Your task to perform on an android device: Add "razer nari" to the cart on bestbuy.com Image 0: 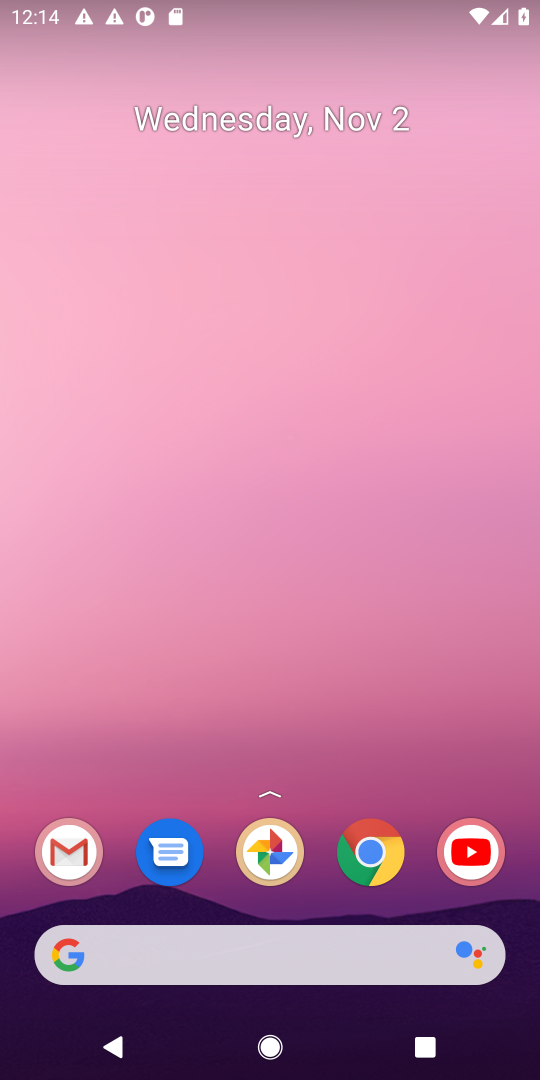
Step 0: press home button
Your task to perform on an android device: Add "razer nari" to the cart on bestbuy.com Image 1: 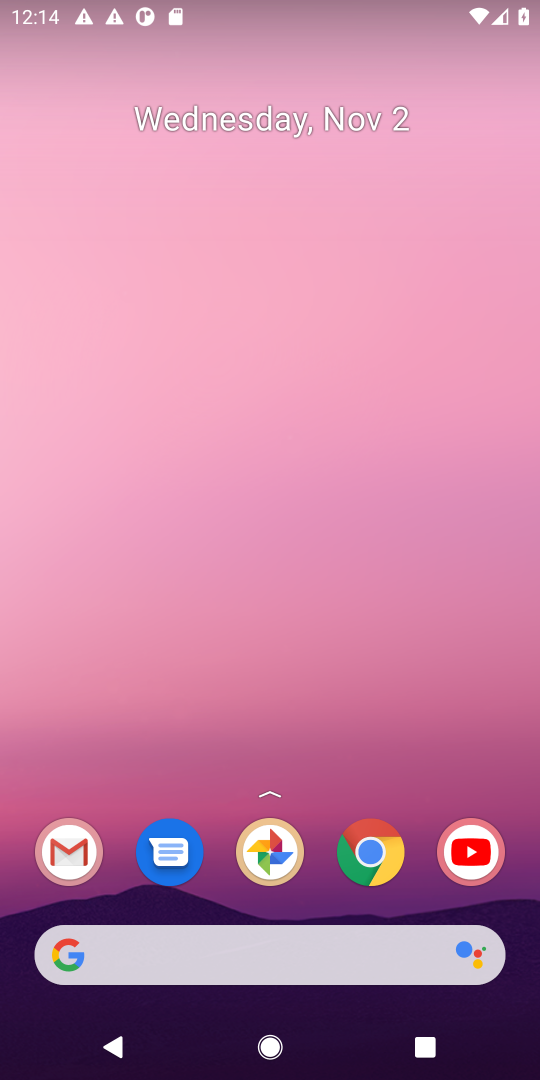
Step 1: click (67, 948)
Your task to perform on an android device: Add "razer nari" to the cart on bestbuy.com Image 2: 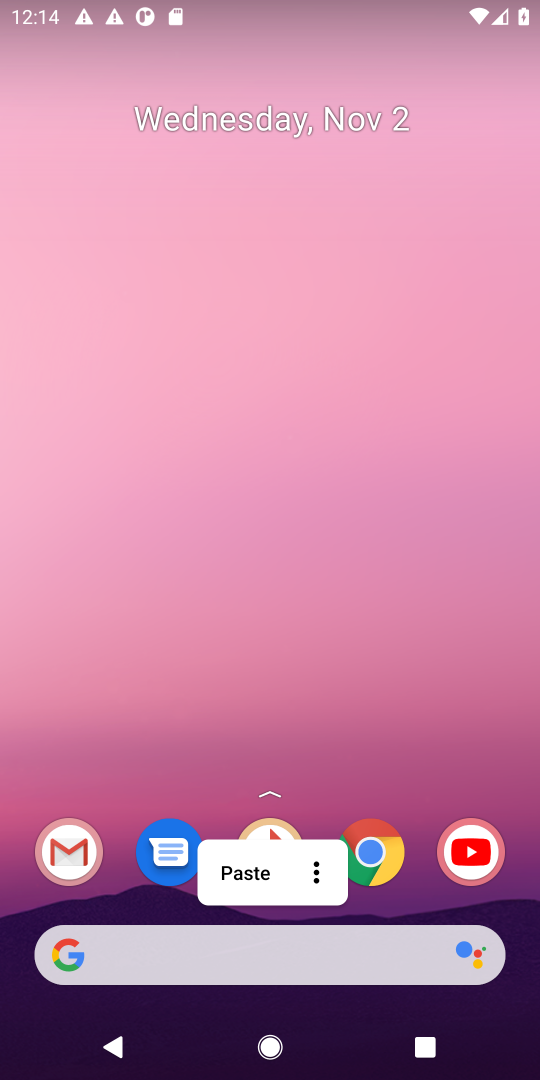
Step 2: click (61, 955)
Your task to perform on an android device: Add "razer nari" to the cart on bestbuy.com Image 3: 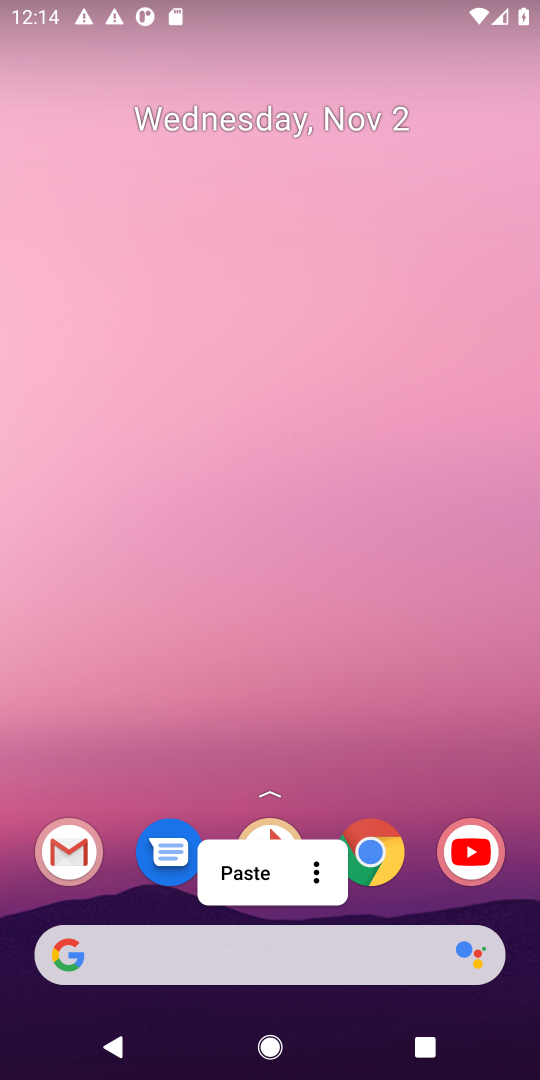
Step 3: click (62, 961)
Your task to perform on an android device: Add "razer nari" to the cart on bestbuy.com Image 4: 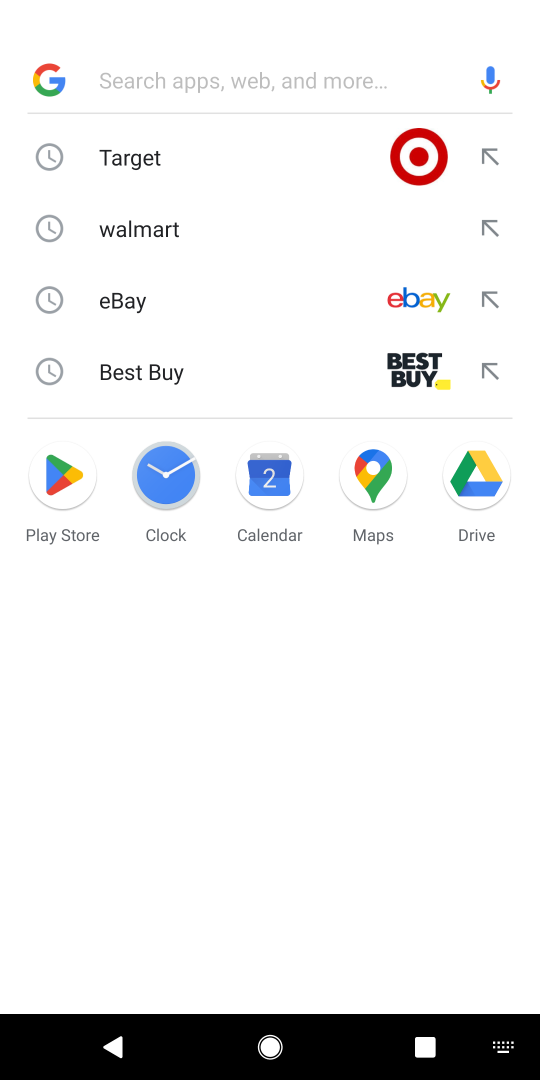
Step 4: type " bestbuy.com"
Your task to perform on an android device: Add "razer nari" to the cart on bestbuy.com Image 5: 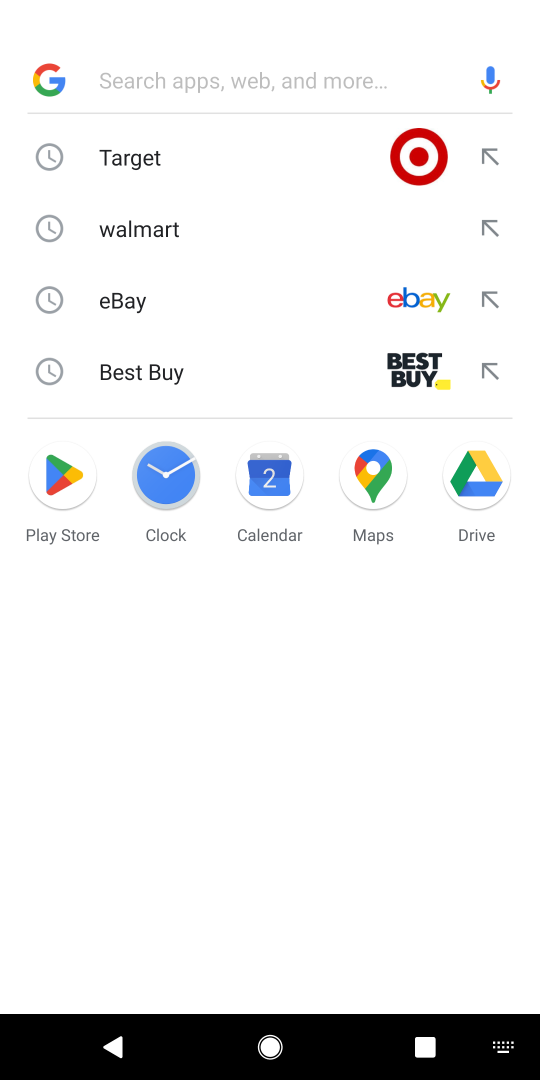
Step 5: click (149, 368)
Your task to perform on an android device: Add "razer nari" to the cart on bestbuy.com Image 6: 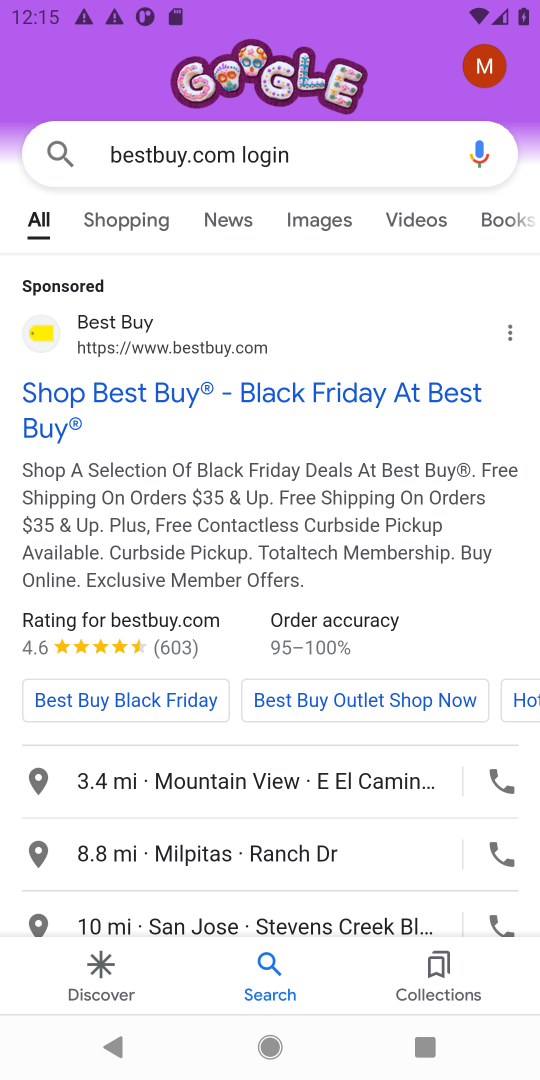
Step 6: drag from (233, 695) to (223, 273)
Your task to perform on an android device: Add "razer nari" to the cart on bestbuy.com Image 7: 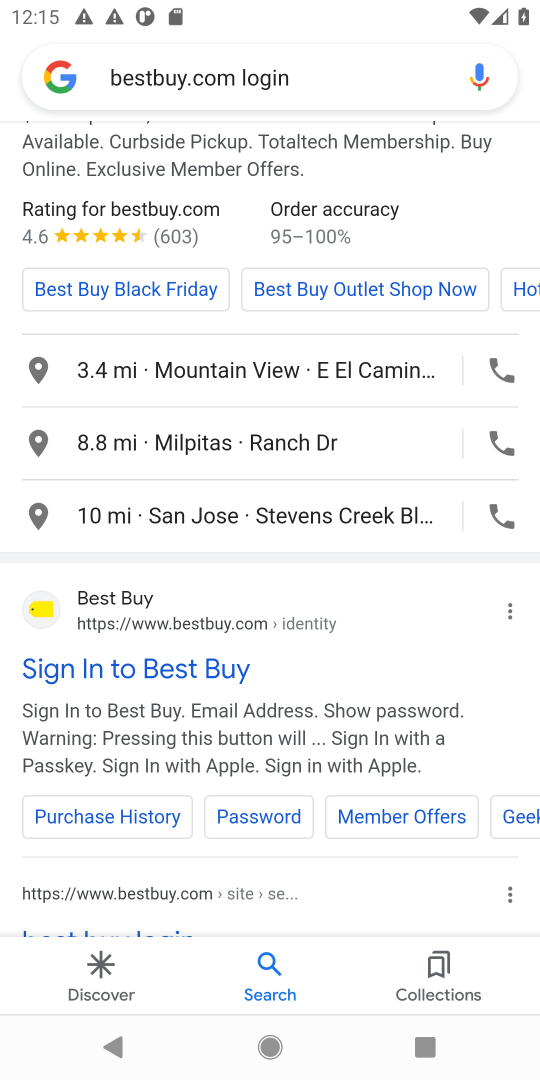
Step 7: click (94, 677)
Your task to perform on an android device: Add "razer nari" to the cart on bestbuy.com Image 8: 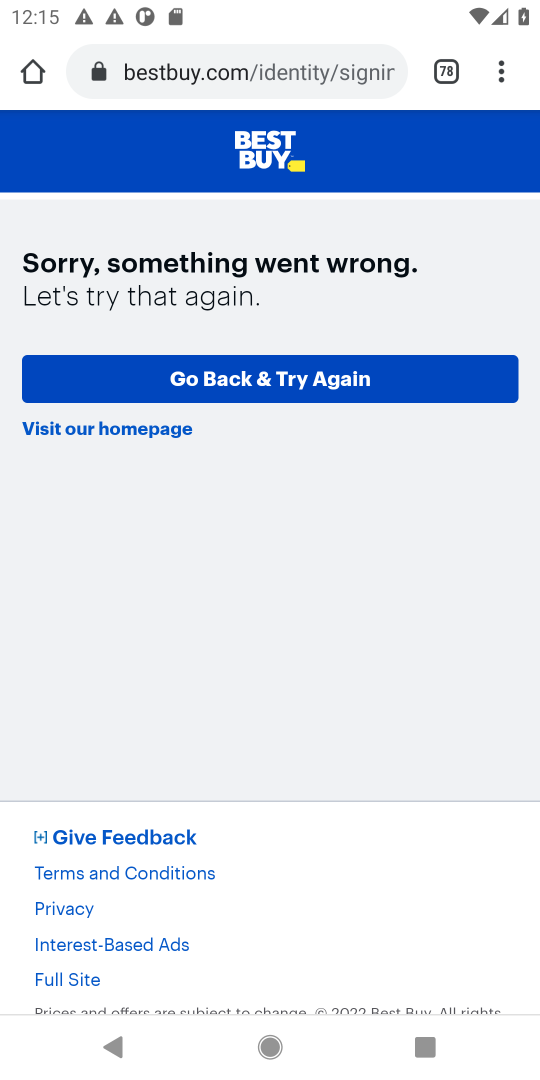
Step 8: click (289, 382)
Your task to perform on an android device: Add "razer nari" to the cart on bestbuy.com Image 9: 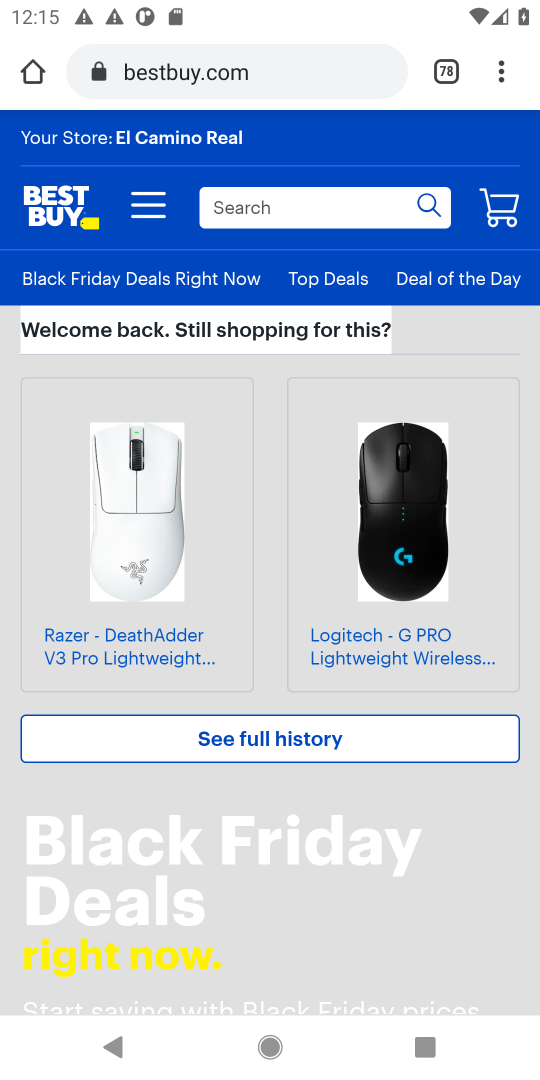
Step 9: click (334, 211)
Your task to perform on an android device: Add "razer nari" to the cart on bestbuy.com Image 10: 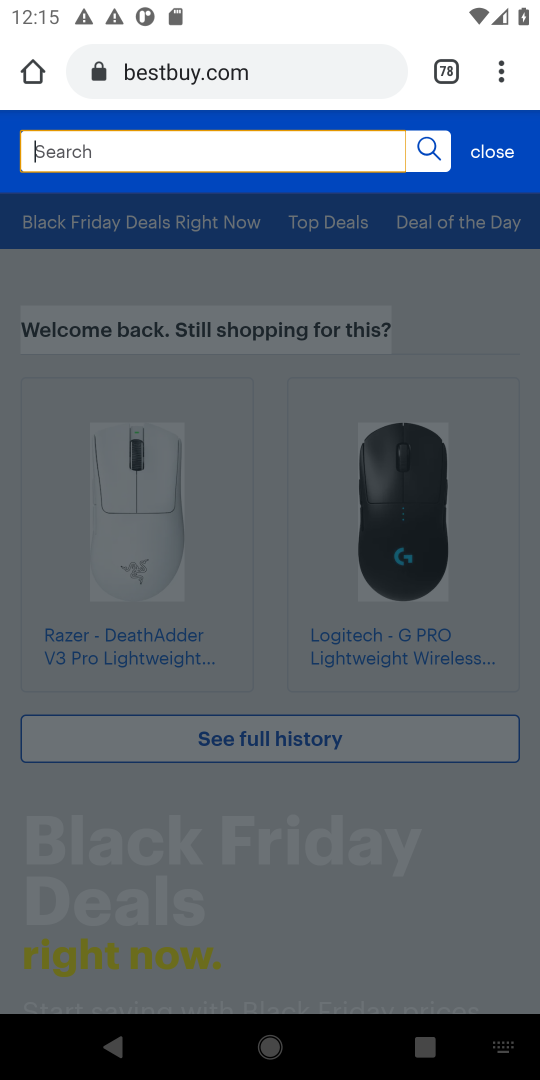
Step 10: type "razer nari"
Your task to perform on an android device: Add "razer nari" to the cart on bestbuy.com Image 11: 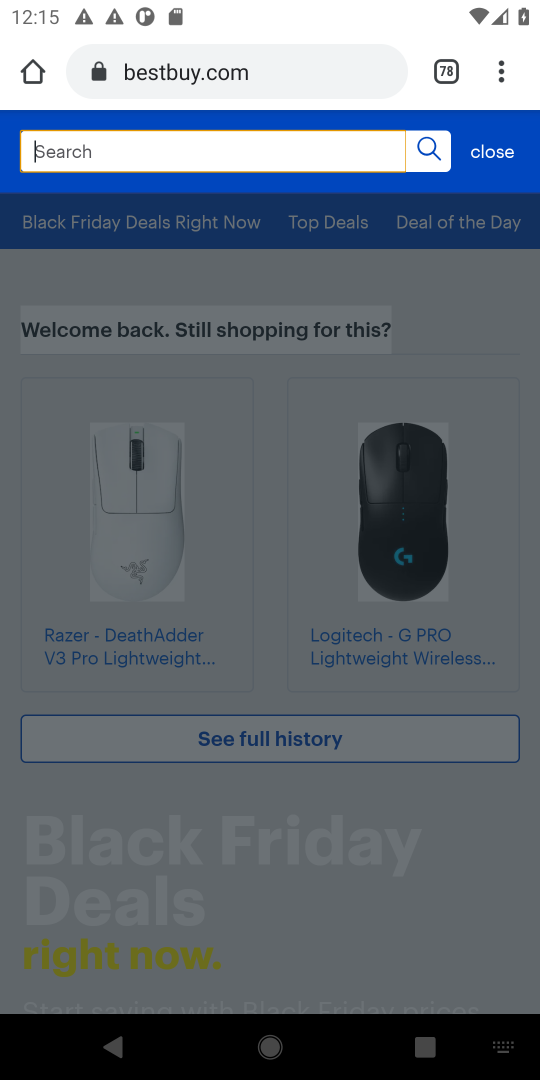
Step 11: click (95, 150)
Your task to perform on an android device: Add "razer nari" to the cart on bestbuy.com Image 12: 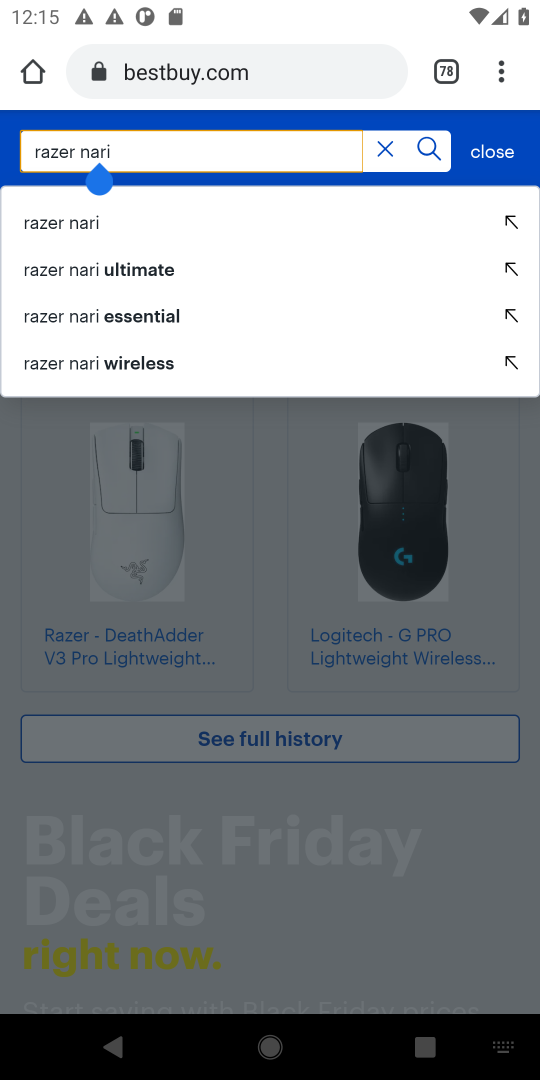
Step 12: click (75, 224)
Your task to perform on an android device: Add "razer nari" to the cart on bestbuy.com Image 13: 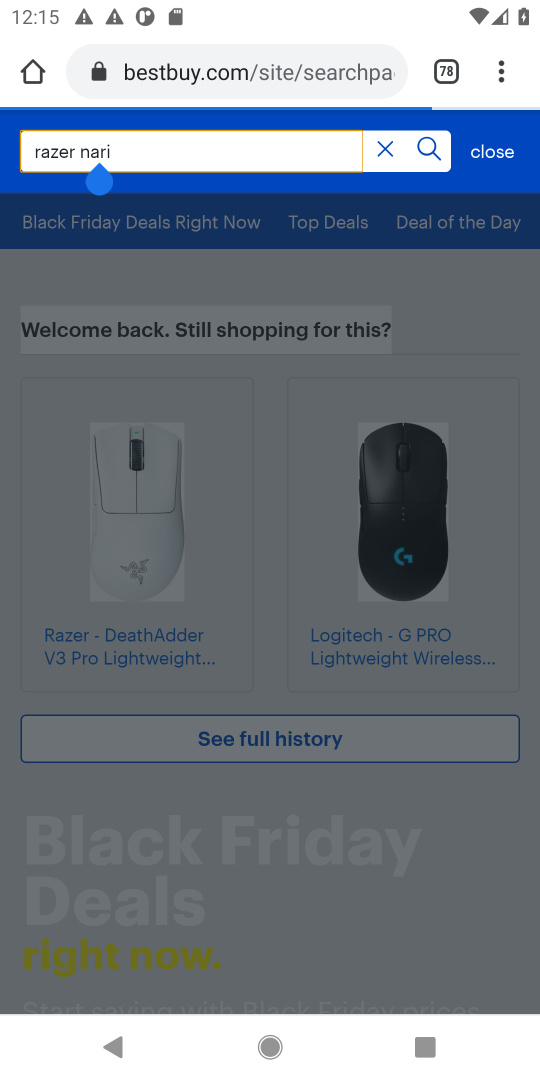
Step 13: press enter
Your task to perform on an android device: Add "razer nari" to the cart on bestbuy.com Image 14: 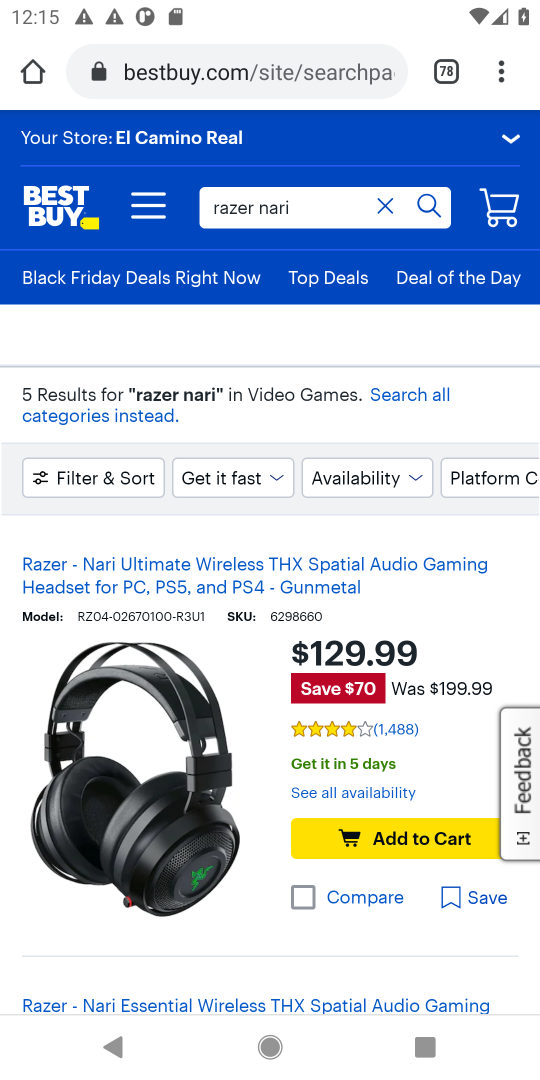
Step 14: click (400, 842)
Your task to perform on an android device: Add "razer nari" to the cart on bestbuy.com Image 15: 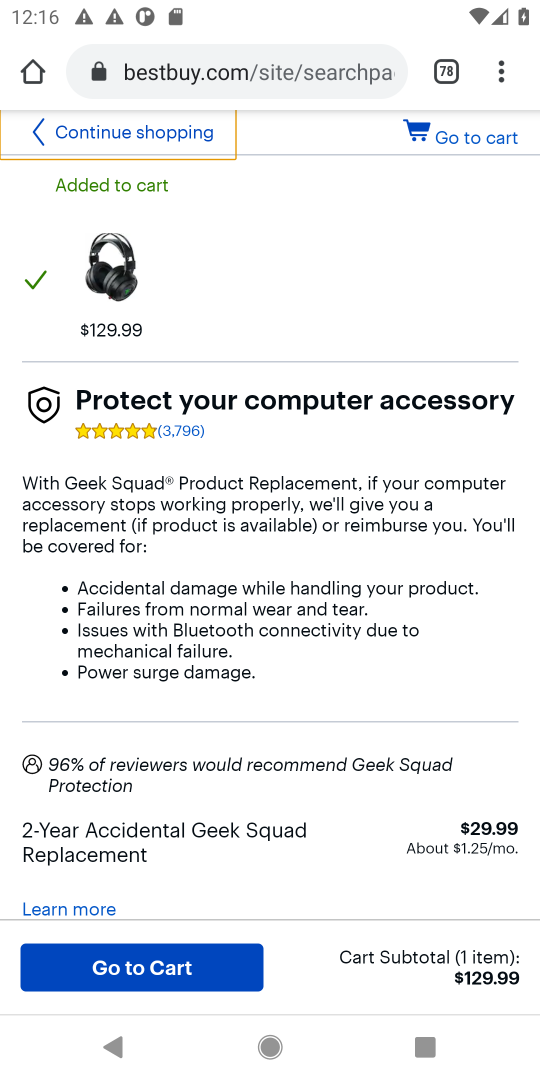
Step 15: click (101, 978)
Your task to perform on an android device: Add "razer nari" to the cart on bestbuy.com Image 16: 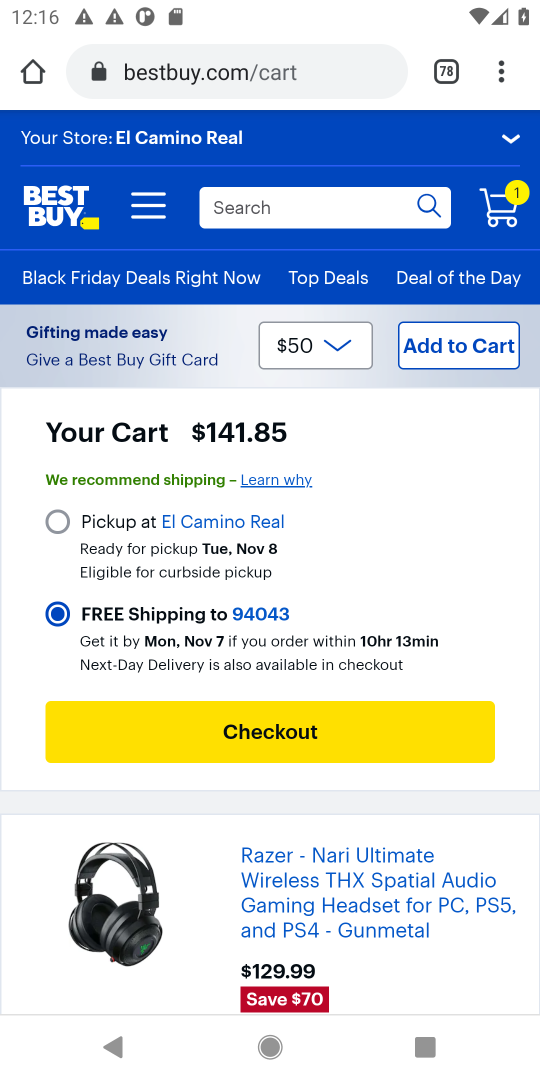
Step 16: task complete